Your task to perform on an android device: turn on priority inbox in the gmail app Image 0: 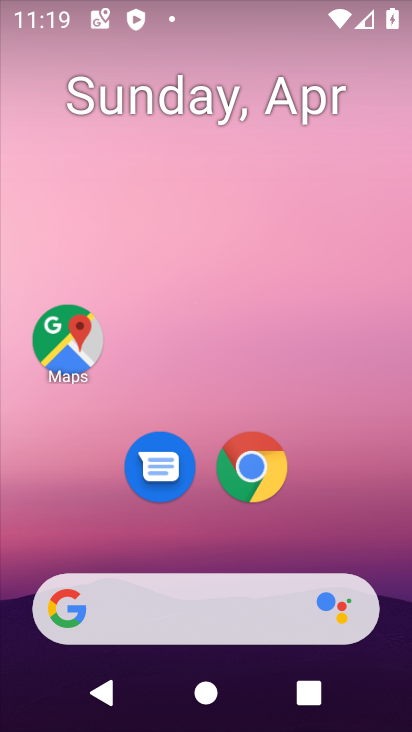
Step 0: click (393, 466)
Your task to perform on an android device: turn on priority inbox in the gmail app Image 1: 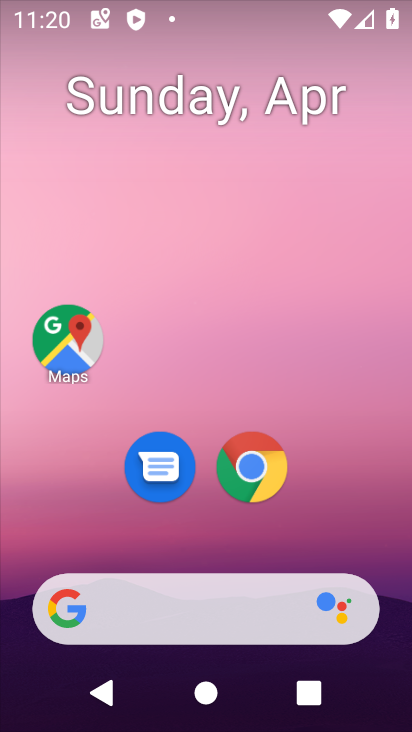
Step 1: drag from (192, 546) to (236, 215)
Your task to perform on an android device: turn on priority inbox in the gmail app Image 2: 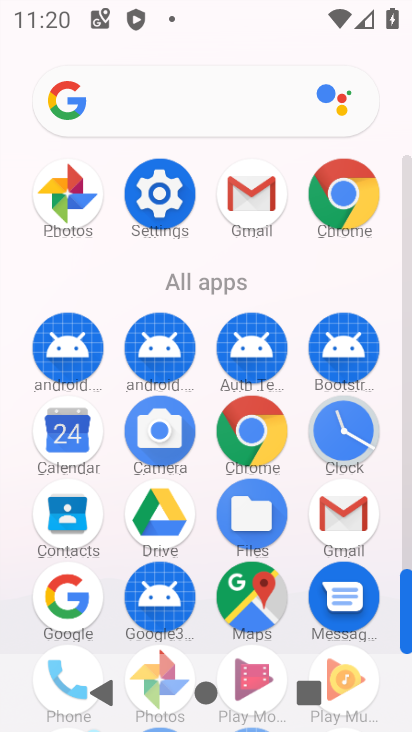
Step 2: click (332, 514)
Your task to perform on an android device: turn on priority inbox in the gmail app Image 3: 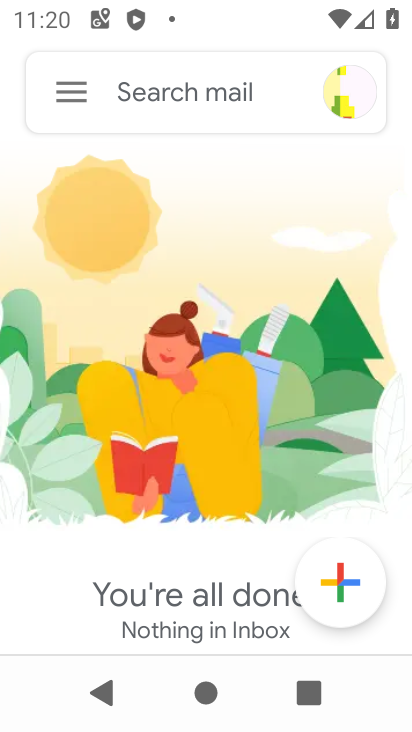
Step 3: click (74, 71)
Your task to perform on an android device: turn on priority inbox in the gmail app Image 4: 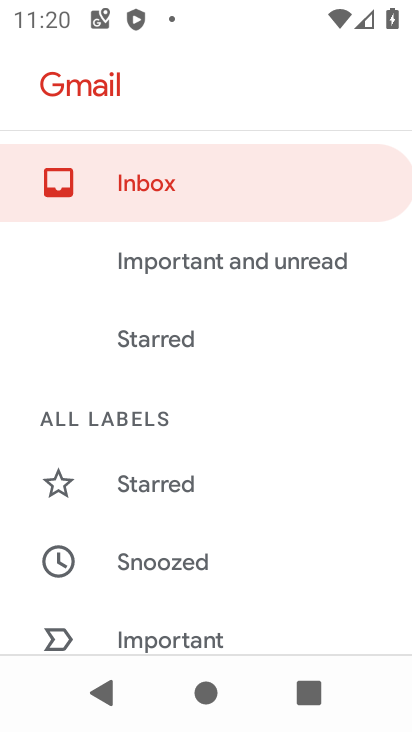
Step 4: drag from (231, 585) to (301, 10)
Your task to perform on an android device: turn on priority inbox in the gmail app Image 5: 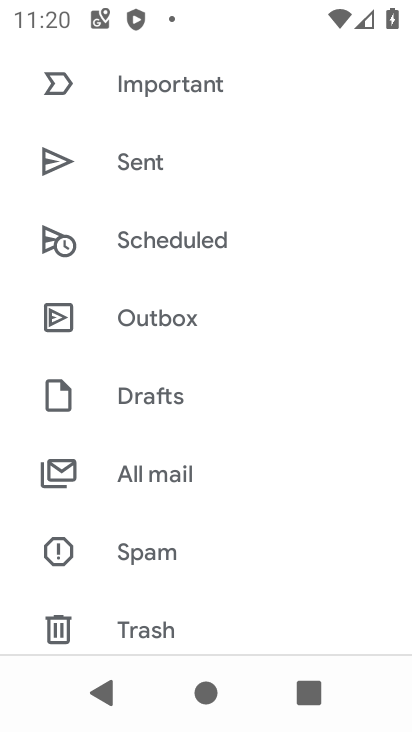
Step 5: drag from (218, 531) to (377, 8)
Your task to perform on an android device: turn on priority inbox in the gmail app Image 6: 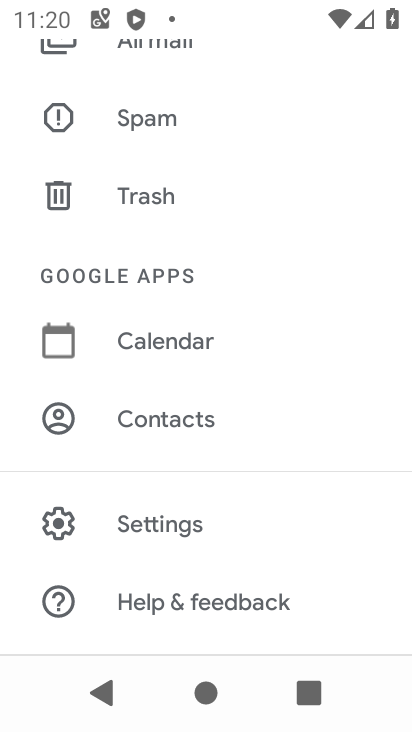
Step 6: click (163, 524)
Your task to perform on an android device: turn on priority inbox in the gmail app Image 7: 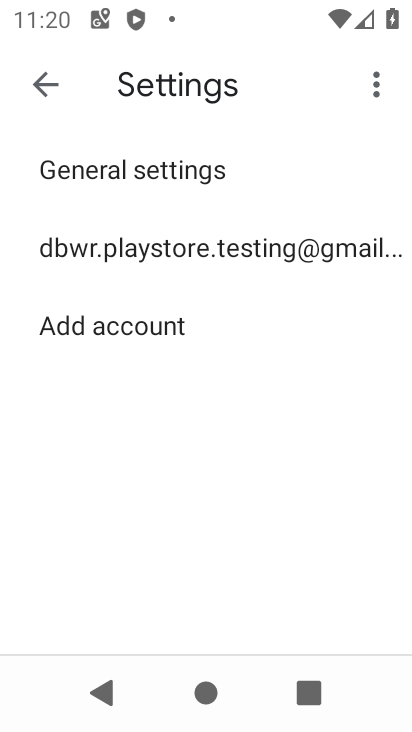
Step 7: drag from (228, 391) to (261, 146)
Your task to perform on an android device: turn on priority inbox in the gmail app Image 8: 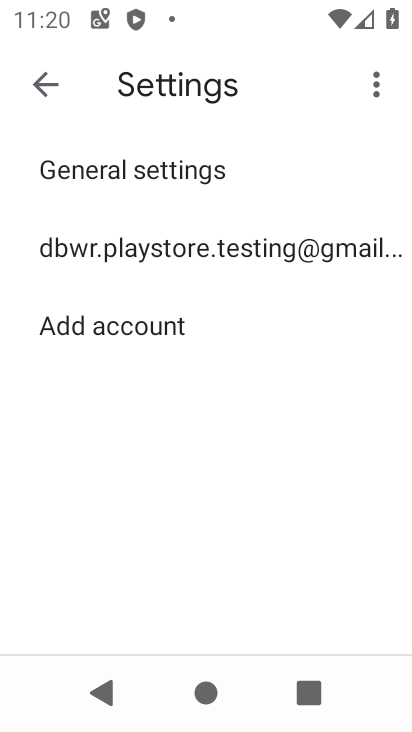
Step 8: click (189, 239)
Your task to perform on an android device: turn on priority inbox in the gmail app Image 9: 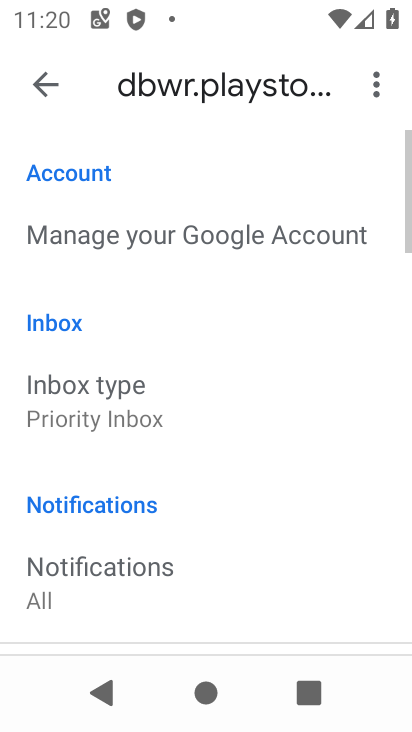
Step 9: drag from (199, 420) to (262, 125)
Your task to perform on an android device: turn on priority inbox in the gmail app Image 10: 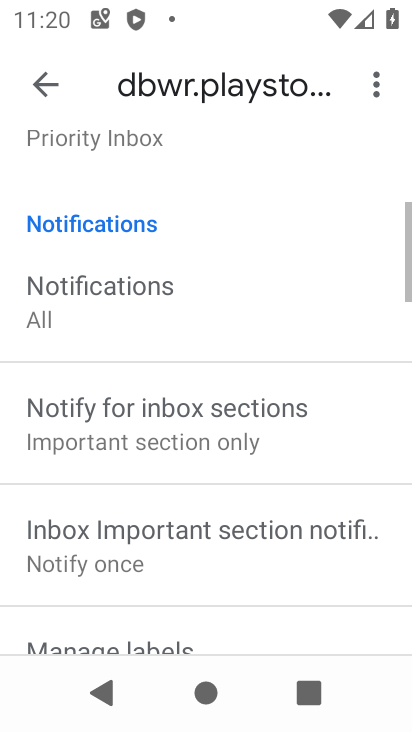
Step 10: drag from (154, 238) to (243, 590)
Your task to perform on an android device: turn on priority inbox in the gmail app Image 11: 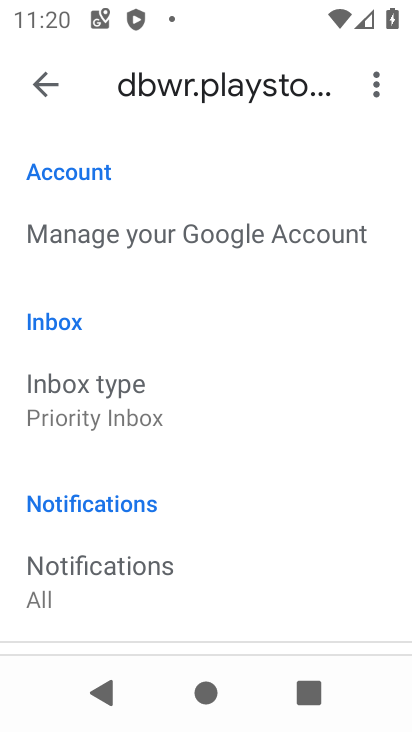
Step 11: click (133, 422)
Your task to perform on an android device: turn on priority inbox in the gmail app Image 12: 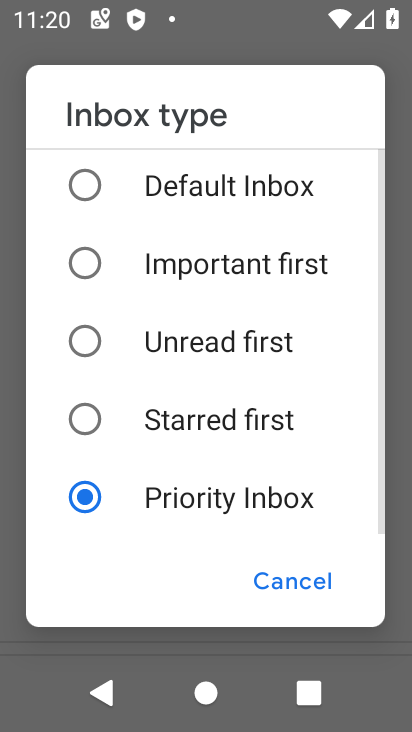
Step 12: click (135, 501)
Your task to perform on an android device: turn on priority inbox in the gmail app Image 13: 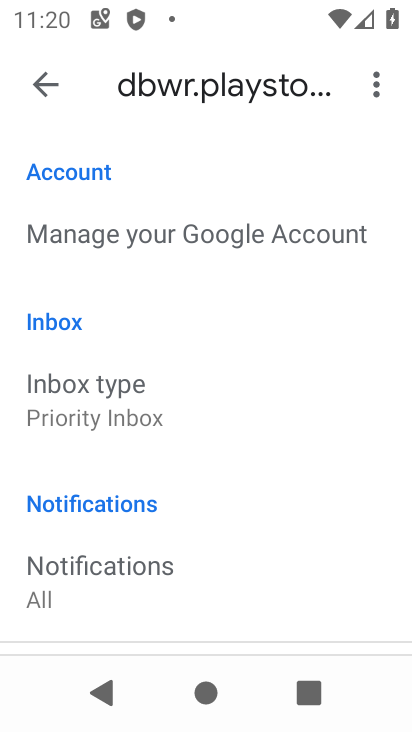
Step 13: task complete